Your task to perform on an android device: turn on data saver in the chrome app Image 0: 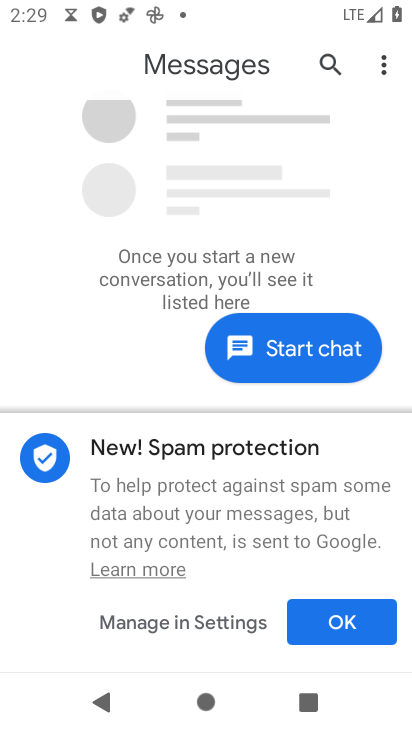
Step 0: press home button
Your task to perform on an android device: turn on data saver in the chrome app Image 1: 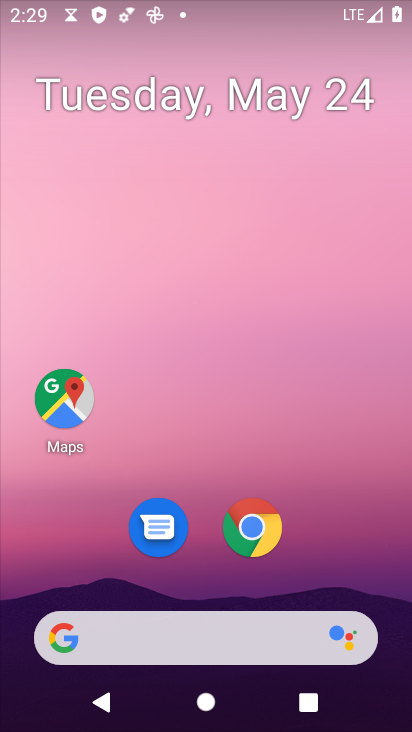
Step 1: click (248, 538)
Your task to perform on an android device: turn on data saver in the chrome app Image 2: 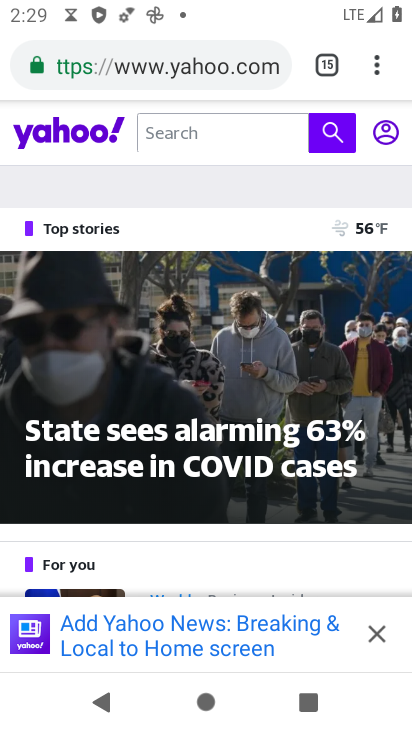
Step 2: drag from (377, 65) to (171, 570)
Your task to perform on an android device: turn on data saver in the chrome app Image 3: 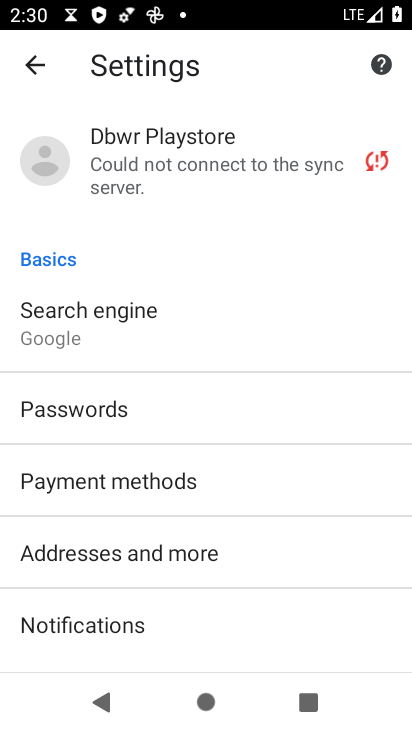
Step 3: drag from (103, 641) to (171, 169)
Your task to perform on an android device: turn on data saver in the chrome app Image 4: 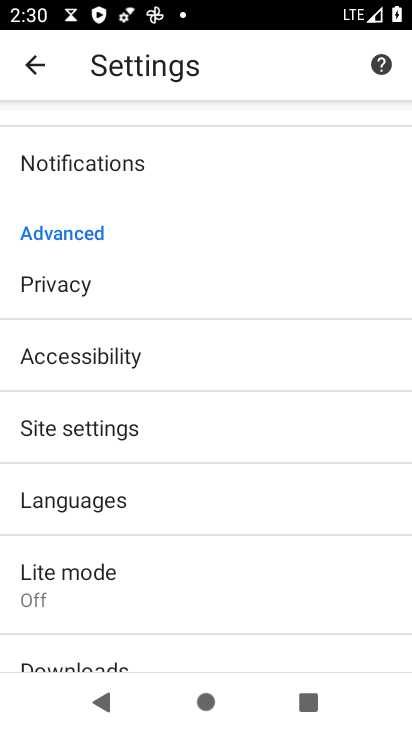
Step 4: click (103, 584)
Your task to perform on an android device: turn on data saver in the chrome app Image 5: 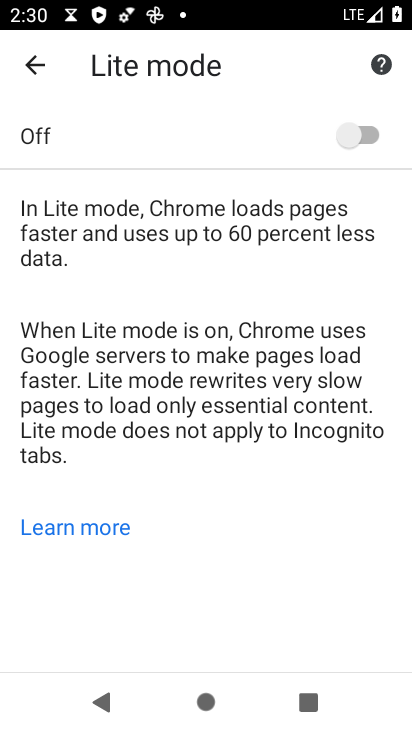
Step 5: click (370, 137)
Your task to perform on an android device: turn on data saver in the chrome app Image 6: 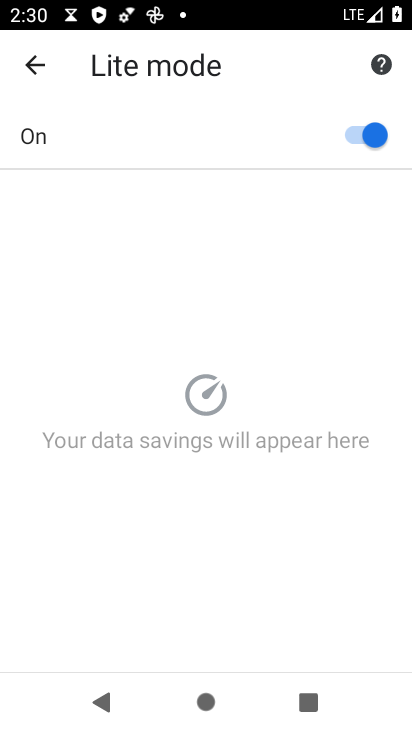
Step 6: task complete